Your task to perform on an android device: toggle improve location accuracy Image 0: 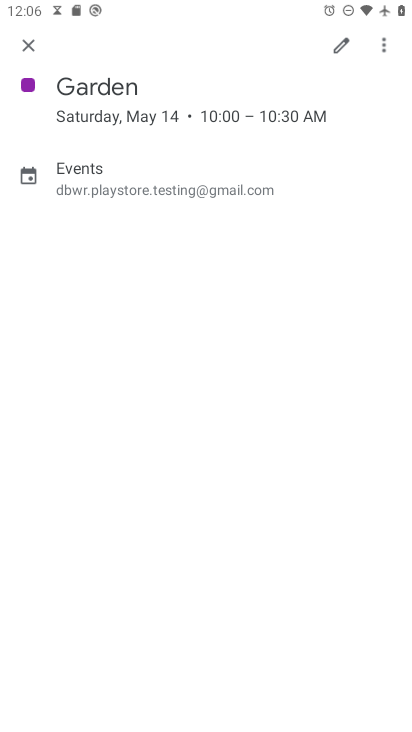
Step 0: press home button
Your task to perform on an android device: toggle improve location accuracy Image 1: 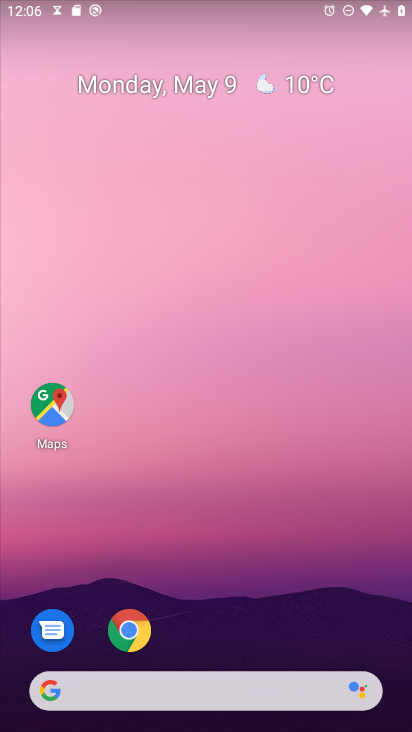
Step 1: drag from (146, 637) to (310, 85)
Your task to perform on an android device: toggle improve location accuracy Image 2: 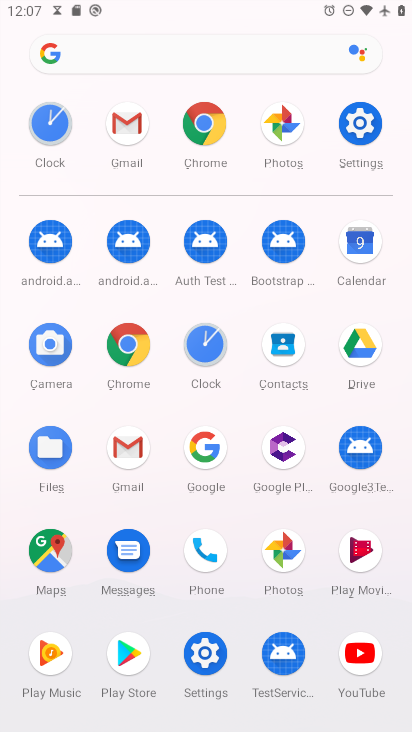
Step 2: click (361, 133)
Your task to perform on an android device: toggle improve location accuracy Image 3: 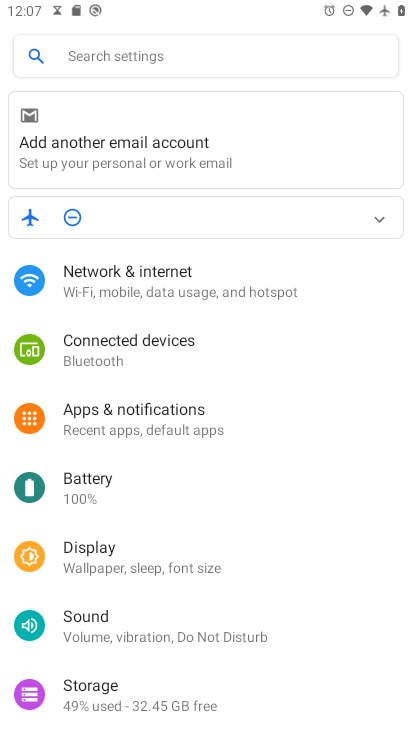
Step 3: drag from (186, 642) to (331, 229)
Your task to perform on an android device: toggle improve location accuracy Image 4: 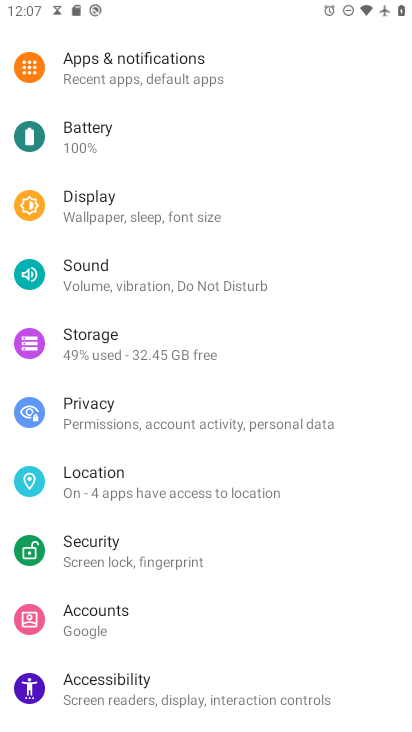
Step 4: click (176, 484)
Your task to perform on an android device: toggle improve location accuracy Image 5: 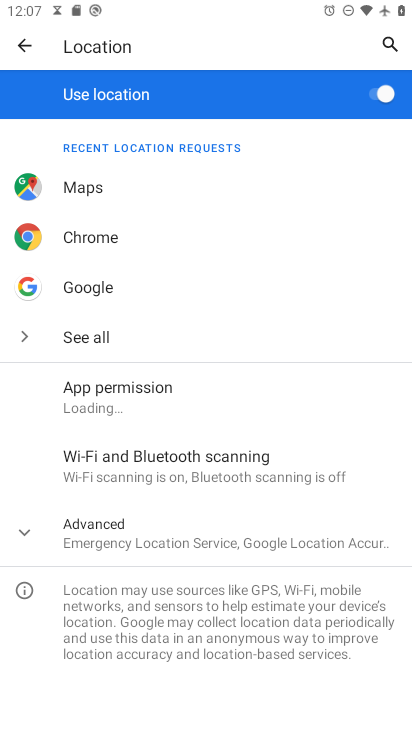
Step 5: click (128, 535)
Your task to perform on an android device: toggle improve location accuracy Image 6: 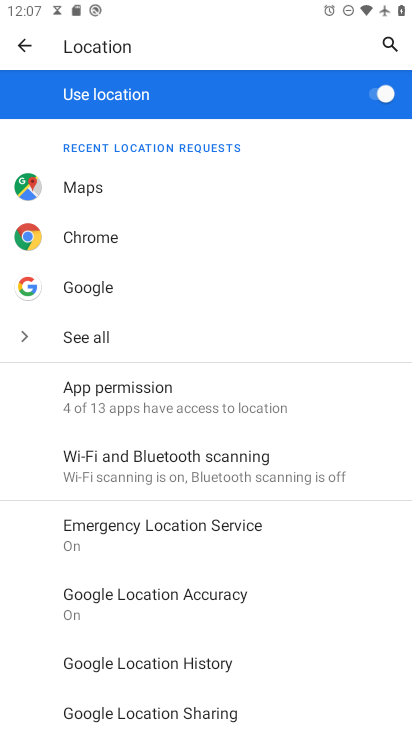
Step 6: click (134, 601)
Your task to perform on an android device: toggle improve location accuracy Image 7: 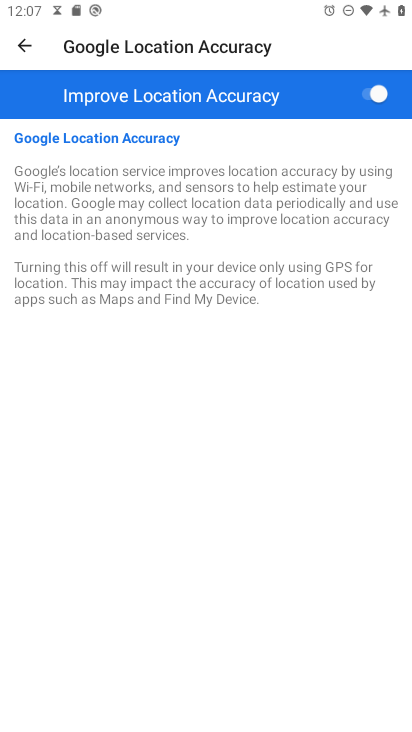
Step 7: click (365, 97)
Your task to perform on an android device: toggle improve location accuracy Image 8: 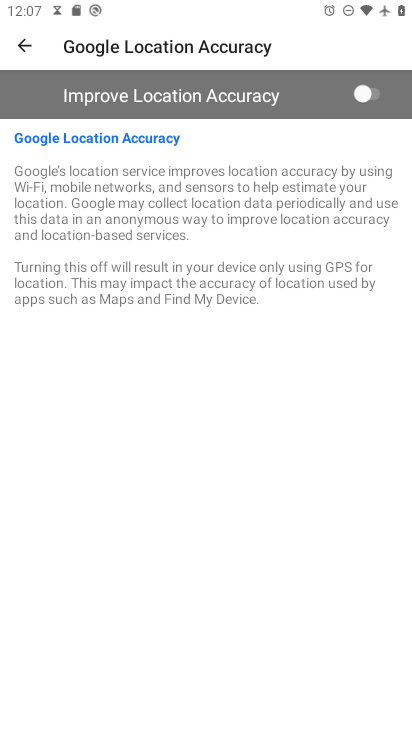
Step 8: task complete